Your task to perform on an android device: refresh tabs in the chrome app Image 0: 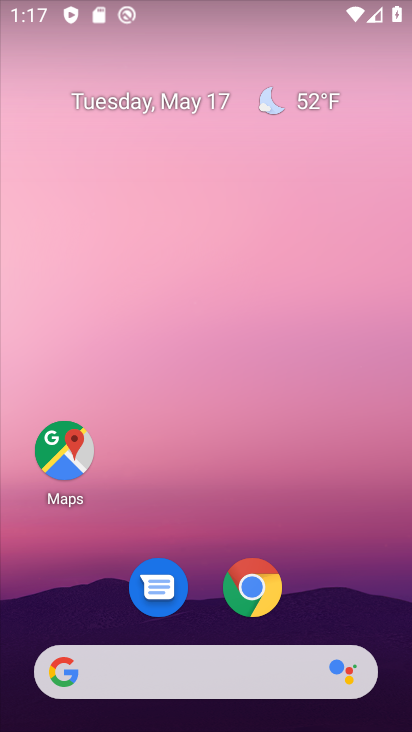
Step 0: click (264, 602)
Your task to perform on an android device: refresh tabs in the chrome app Image 1: 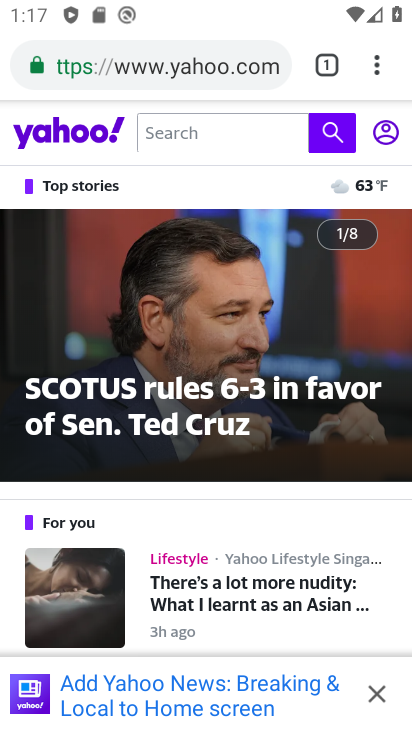
Step 1: click (373, 92)
Your task to perform on an android device: refresh tabs in the chrome app Image 2: 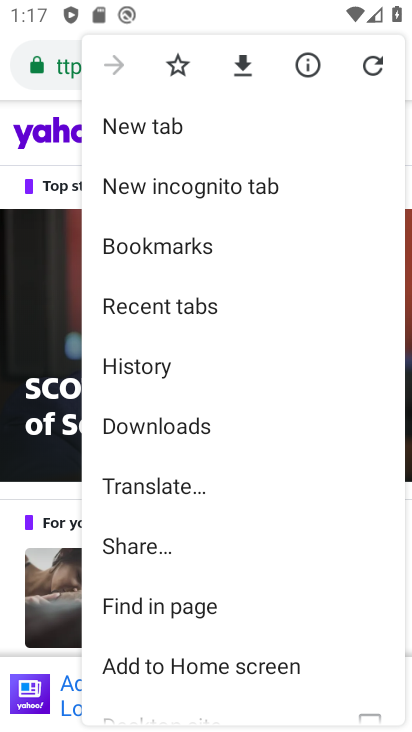
Step 2: click (364, 74)
Your task to perform on an android device: refresh tabs in the chrome app Image 3: 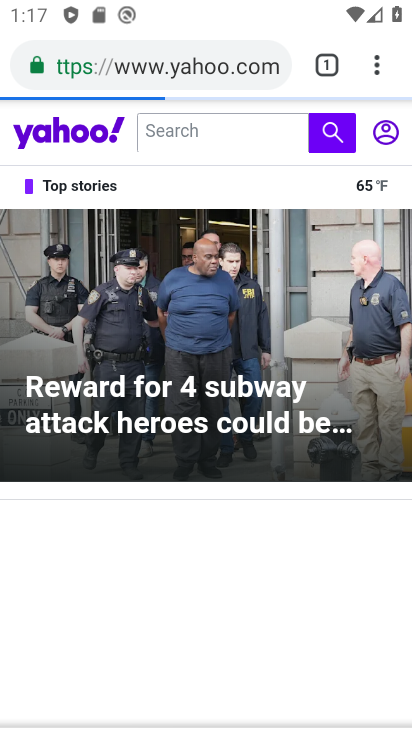
Step 3: task complete